Your task to perform on an android device: Open Chrome and go to settings Image 0: 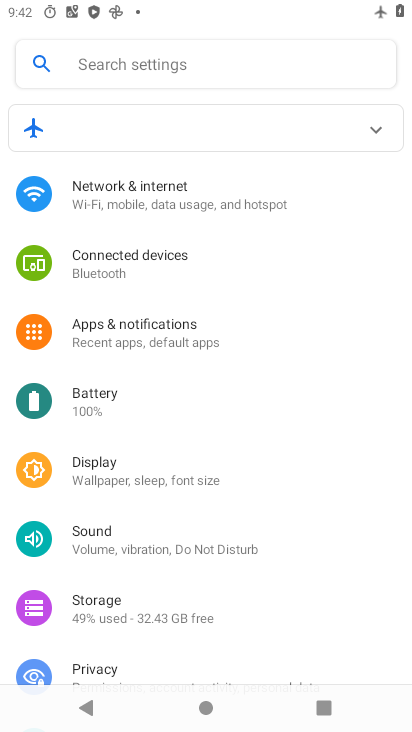
Step 0: press home button
Your task to perform on an android device: Open Chrome and go to settings Image 1: 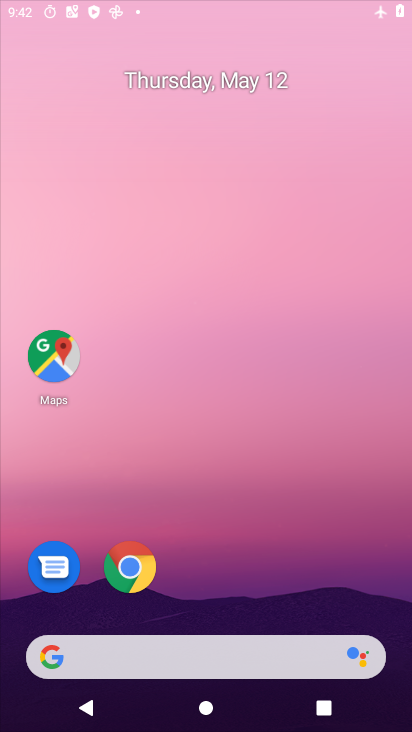
Step 1: drag from (221, 621) to (254, 179)
Your task to perform on an android device: Open Chrome and go to settings Image 2: 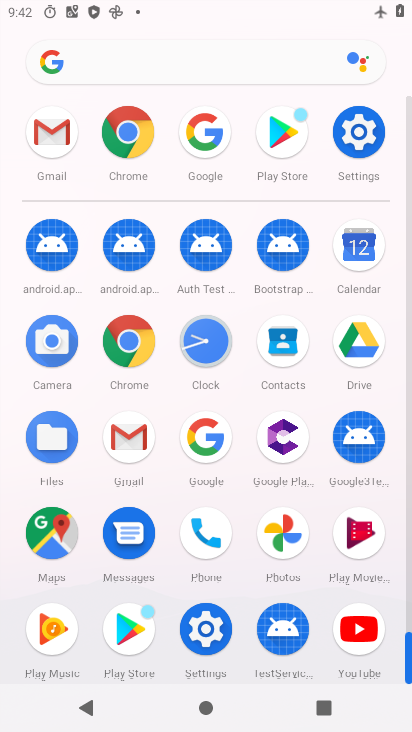
Step 2: click (137, 152)
Your task to perform on an android device: Open Chrome and go to settings Image 3: 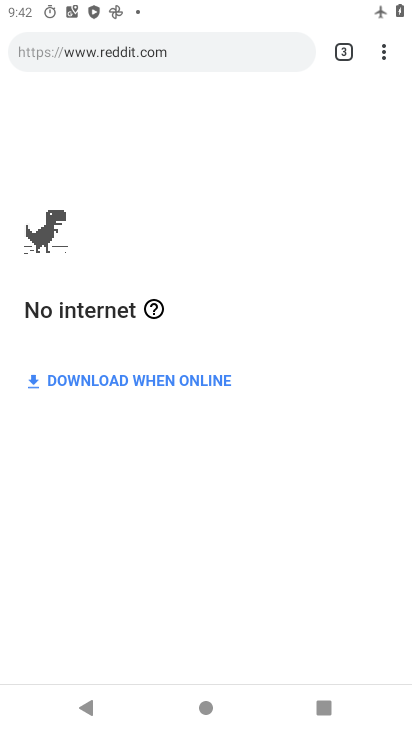
Step 3: click (392, 67)
Your task to perform on an android device: Open Chrome and go to settings Image 4: 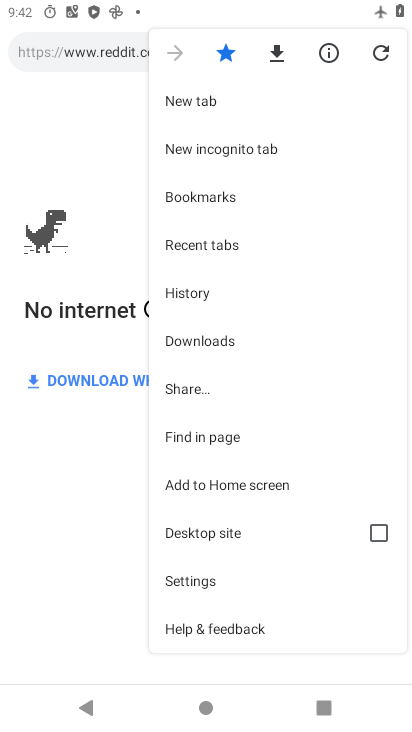
Step 4: drag from (281, 486) to (316, 282)
Your task to perform on an android device: Open Chrome and go to settings Image 5: 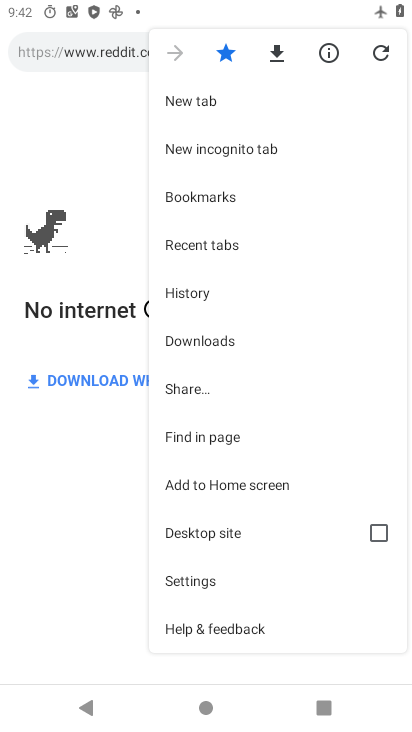
Step 5: drag from (224, 553) to (224, 389)
Your task to perform on an android device: Open Chrome and go to settings Image 6: 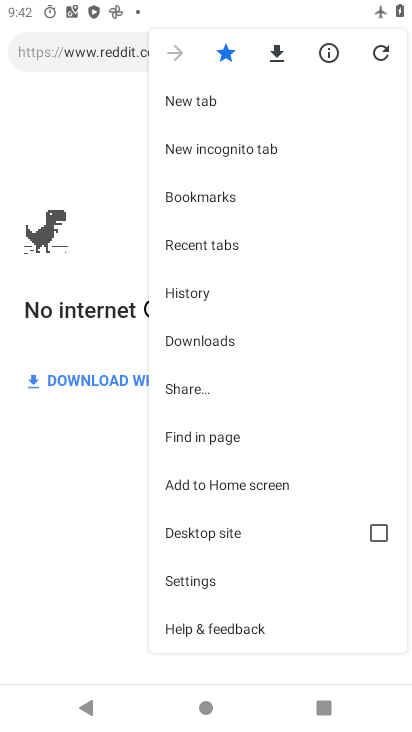
Step 6: click (204, 591)
Your task to perform on an android device: Open Chrome and go to settings Image 7: 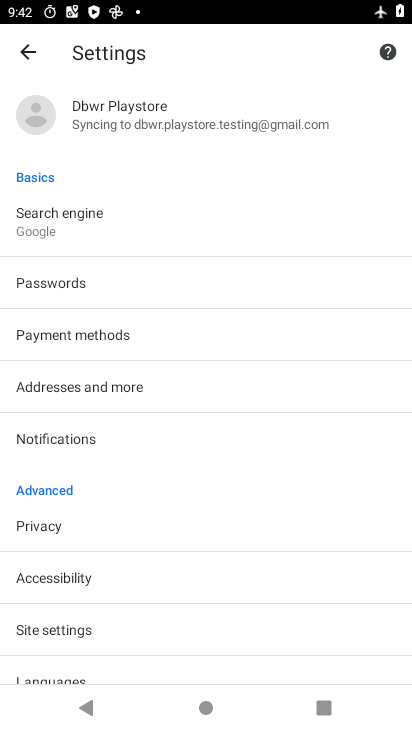
Step 7: task complete